Your task to perform on an android device: remove spam from my inbox in the gmail app Image 0: 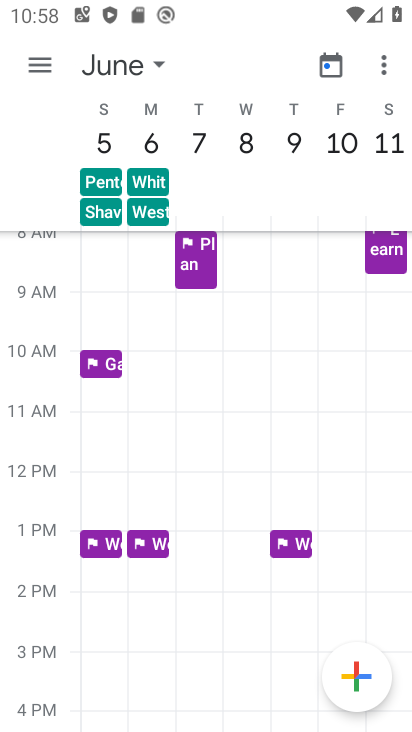
Step 0: press back button
Your task to perform on an android device: remove spam from my inbox in the gmail app Image 1: 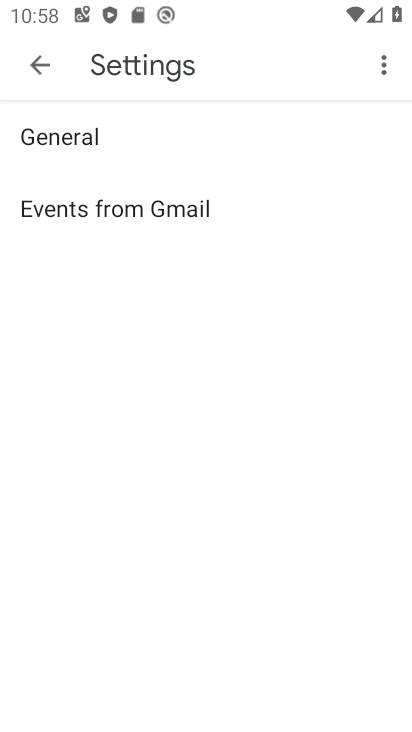
Step 1: press home button
Your task to perform on an android device: remove spam from my inbox in the gmail app Image 2: 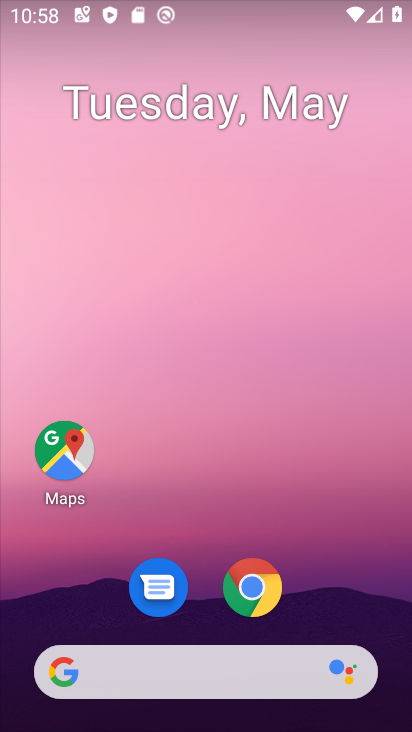
Step 2: drag from (339, 578) to (254, 9)
Your task to perform on an android device: remove spam from my inbox in the gmail app Image 3: 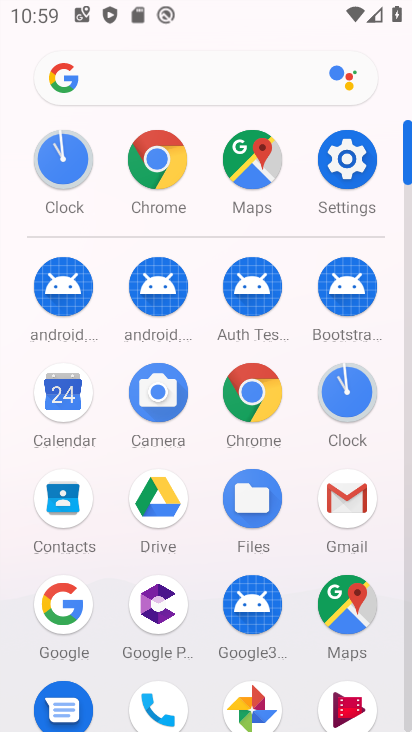
Step 3: drag from (10, 568) to (21, 252)
Your task to perform on an android device: remove spam from my inbox in the gmail app Image 4: 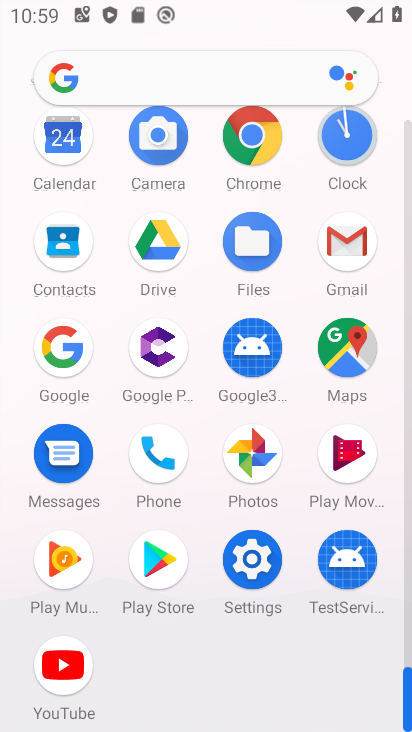
Step 4: click (343, 234)
Your task to perform on an android device: remove spam from my inbox in the gmail app Image 5: 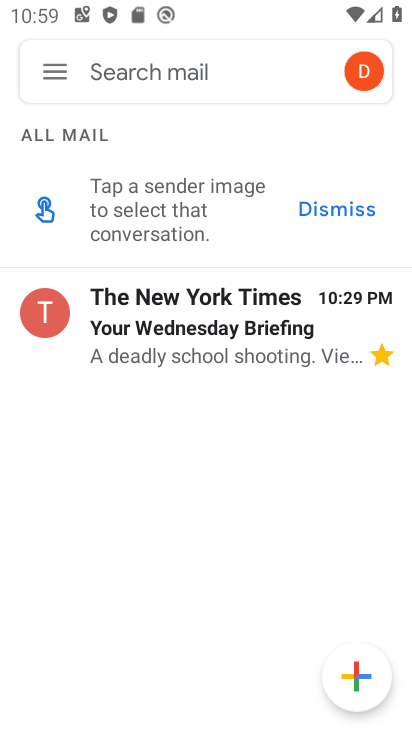
Step 5: click (45, 70)
Your task to perform on an android device: remove spam from my inbox in the gmail app Image 6: 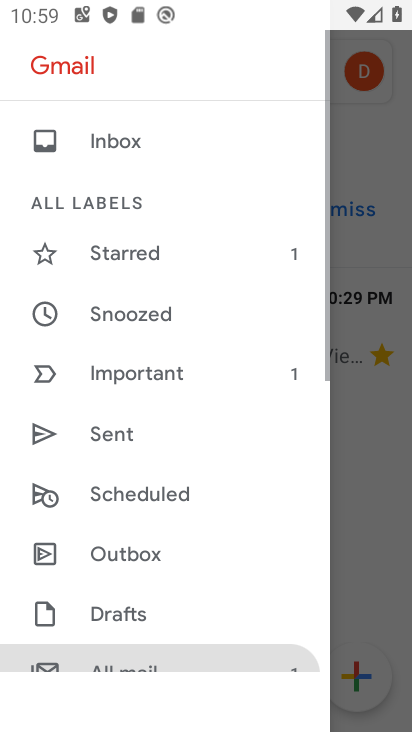
Step 6: drag from (290, 610) to (269, 193)
Your task to perform on an android device: remove spam from my inbox in the gmail app Image 7: 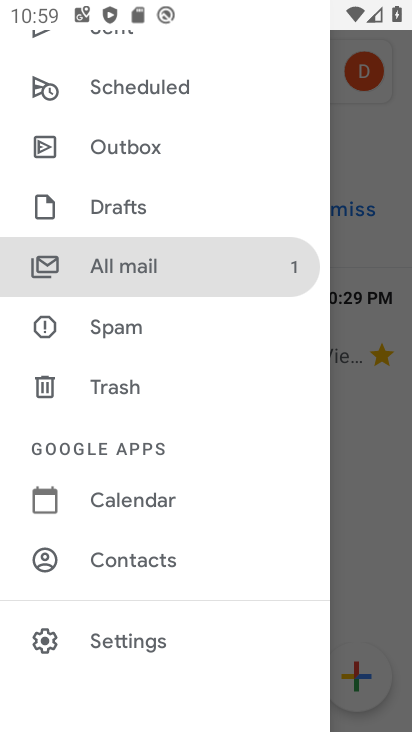
Step 7: click (172, 327)
Your task to perform on an android device: remove spam from my inbox in the gmail app Image 8: 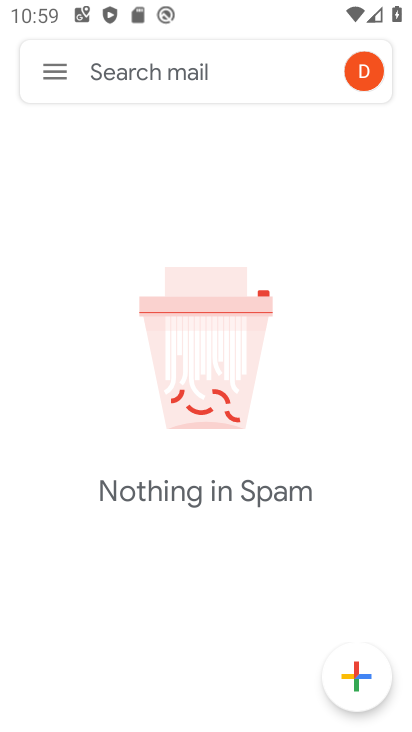
Step 8: task complete